Your task to perform on an android device: turn off notifications in google photos Image 0: 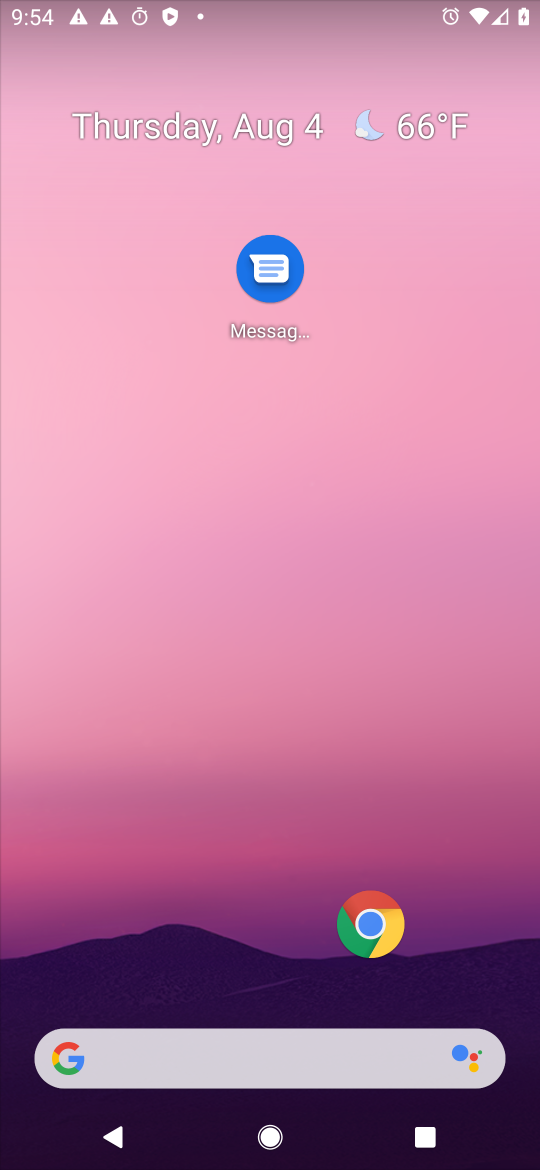
Step 0: drag from (294, 682) to (296, 107)
Your task to perform on an android device: turn off notifications in google photos Image 1: 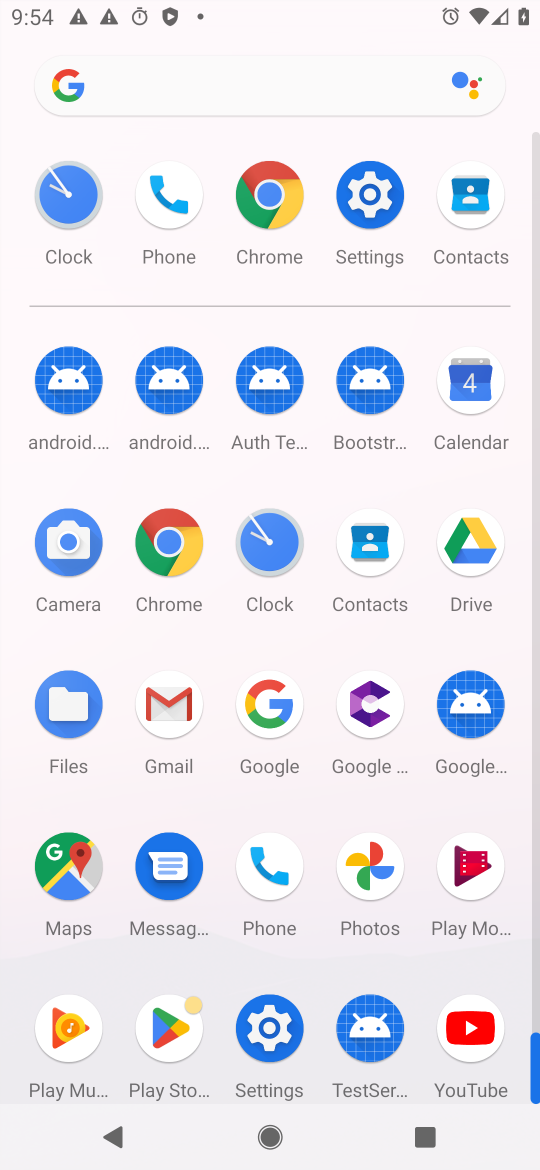
Step 1: click (353, 874)
Your task to perform on an android device: turn off notifications in google photos Image 2: 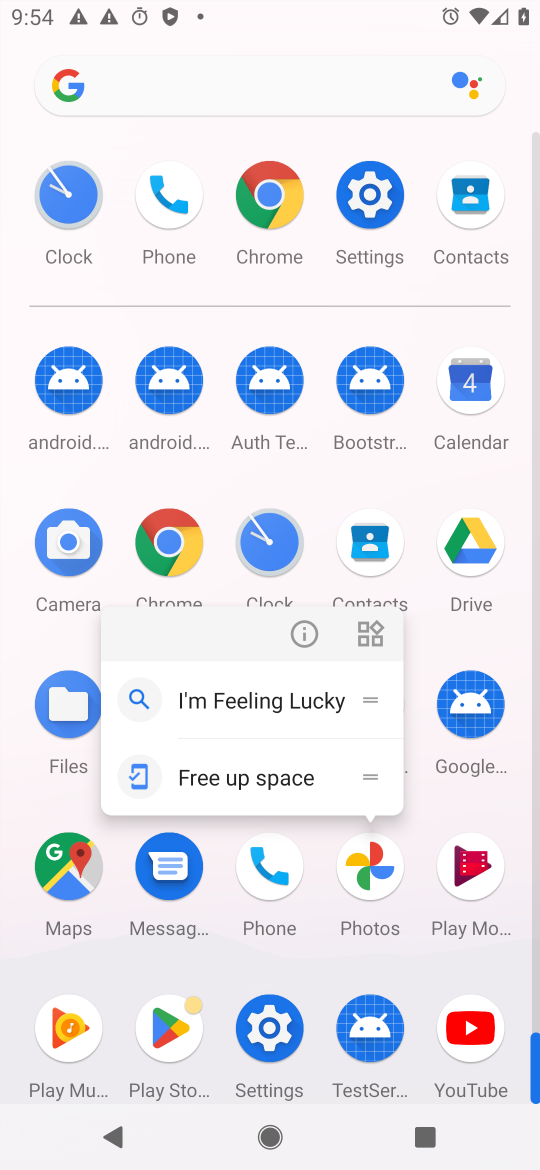
Step 2: click (300, 636)
Your task to perform on an android device: turn off notifications in google photos Image 3: 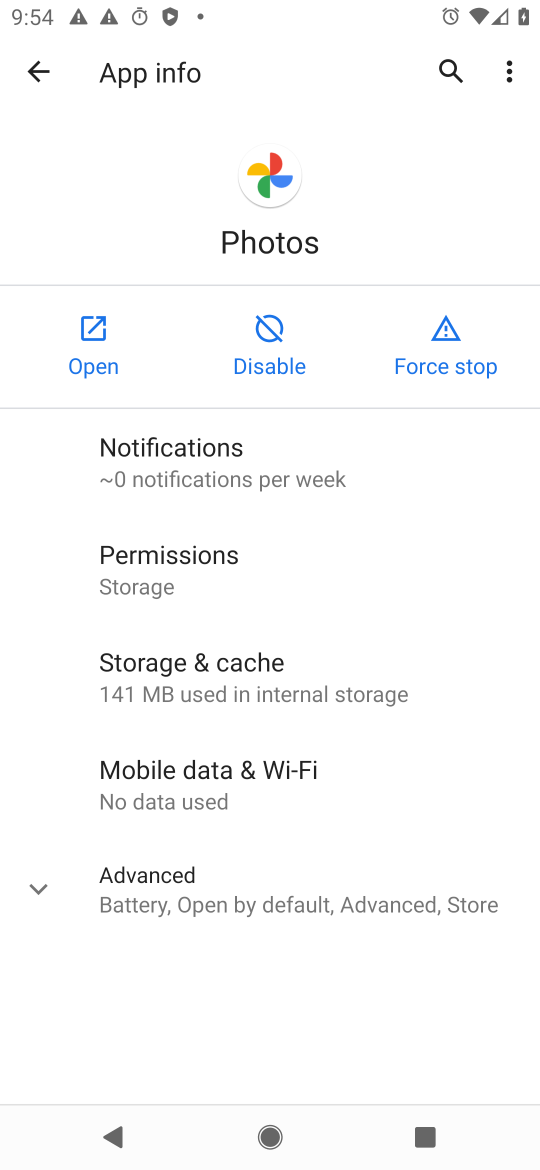
Step 3: click (98, 340)
Your task to perform on an android device: turn off notifications in google photos Image 4: 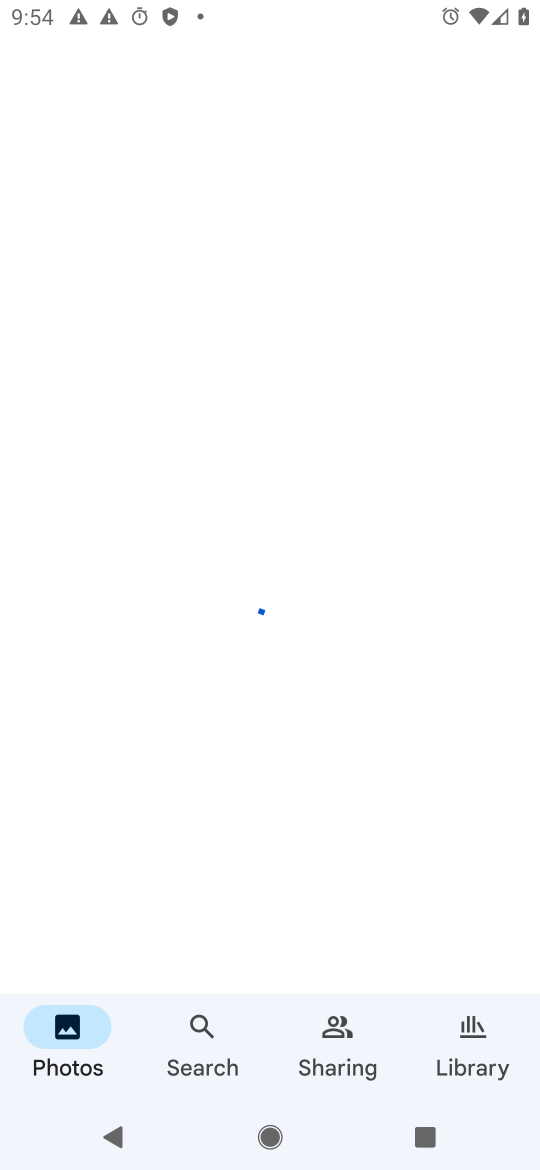
Step 4: drag from (241, 886) to (279, 589)
Your task to perform on an android device: turn off notifications in google photos Image 5: 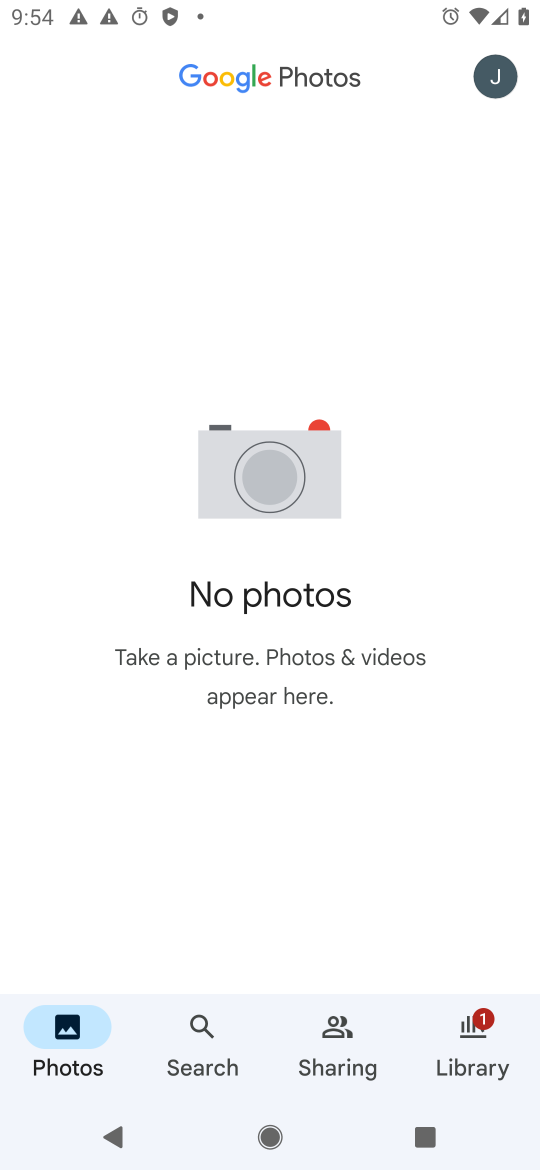
Step 5: drag from (225, 895) to (265, 421)
Your task to perform on an android device: turn off notifications in google photos Image 6: 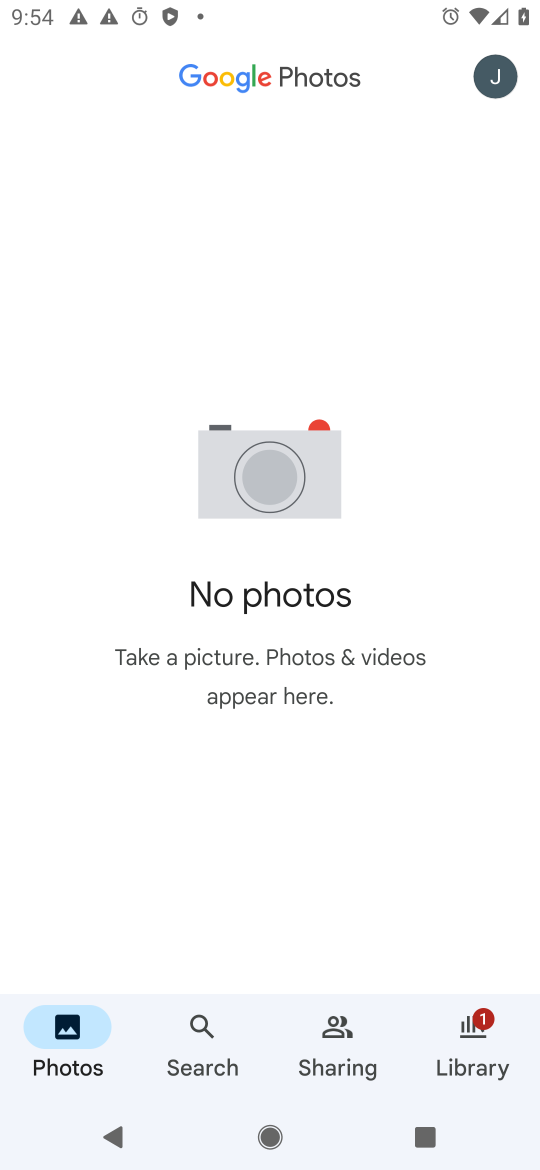
Step 6: drag from (293, 866) to (312, 507)
Your task to perform on an android device: turn off notifications in google photos Image 7: 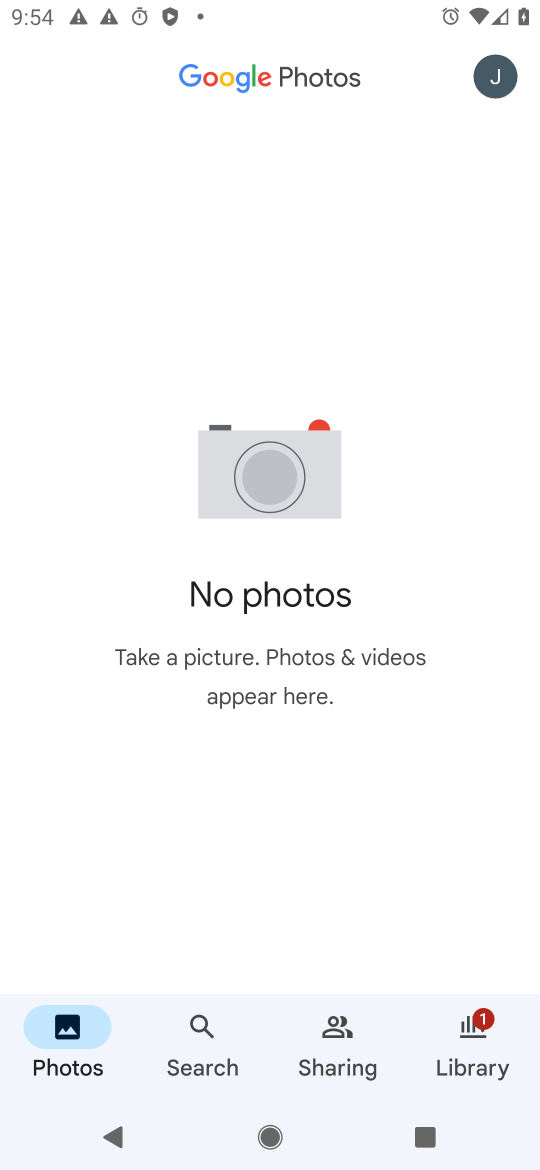
Step 7: click (499, 72)
Your task to perform on an android device: turn off notifications in google photos Image 8: 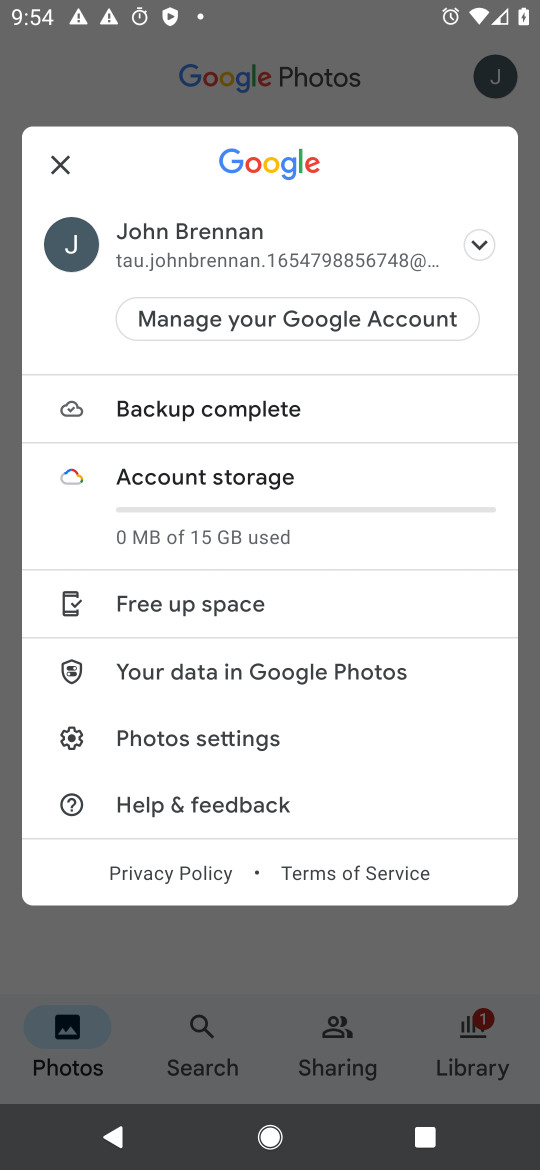
Step 8: click (173, 730)
Your task to perform on an android device: turn off notifications in google photos Image 9: 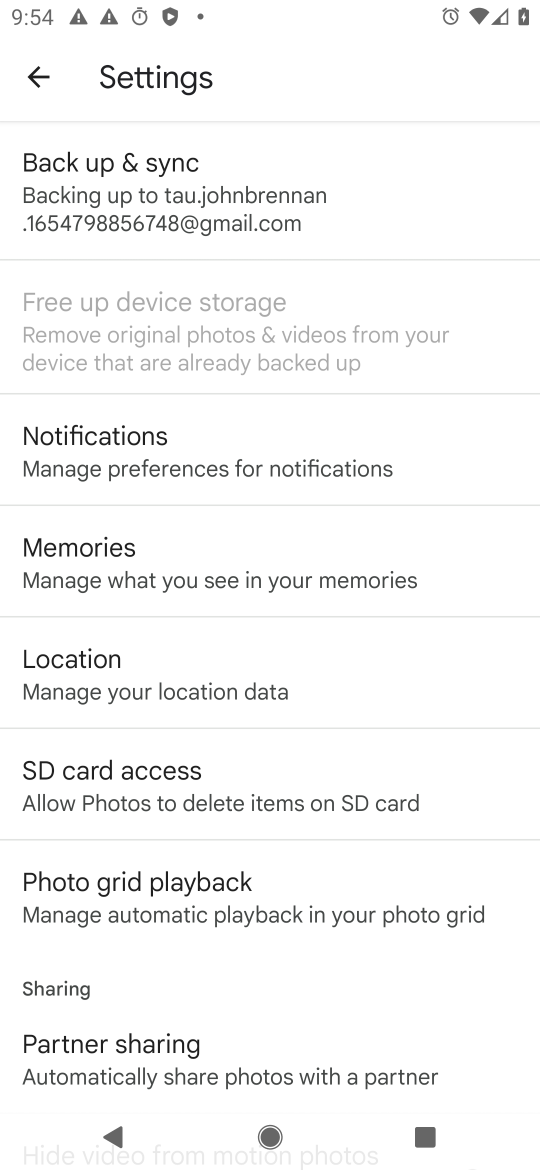
Step 9: click (169, 444)
Your task to perform on an android device: turn off notifications in google photos Image 10: 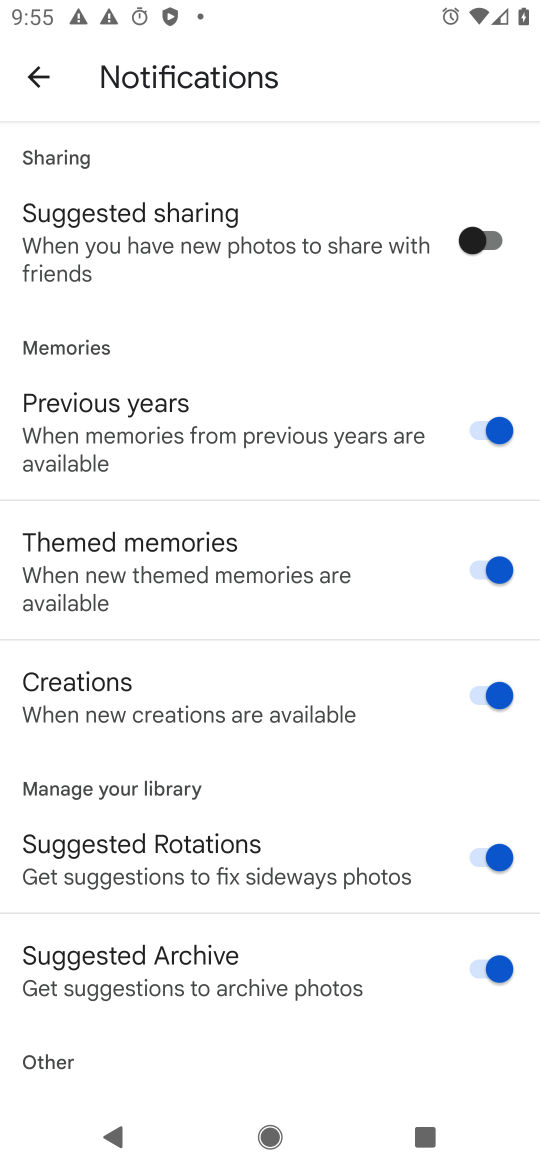
Step 10: drag from (248, 1003) to (316, 440)
Your task to perform on an android device: turn off notifications in google photos Image 11: 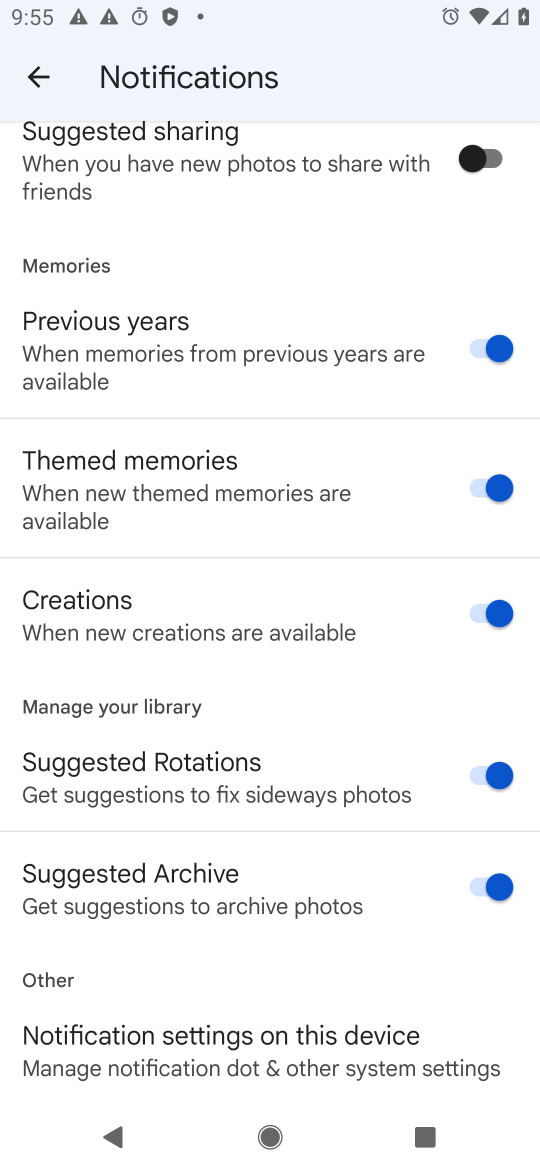
Step 11: click (155, 1029)
Your task to perform on an android device: turn off notifications in google photos Image 12: 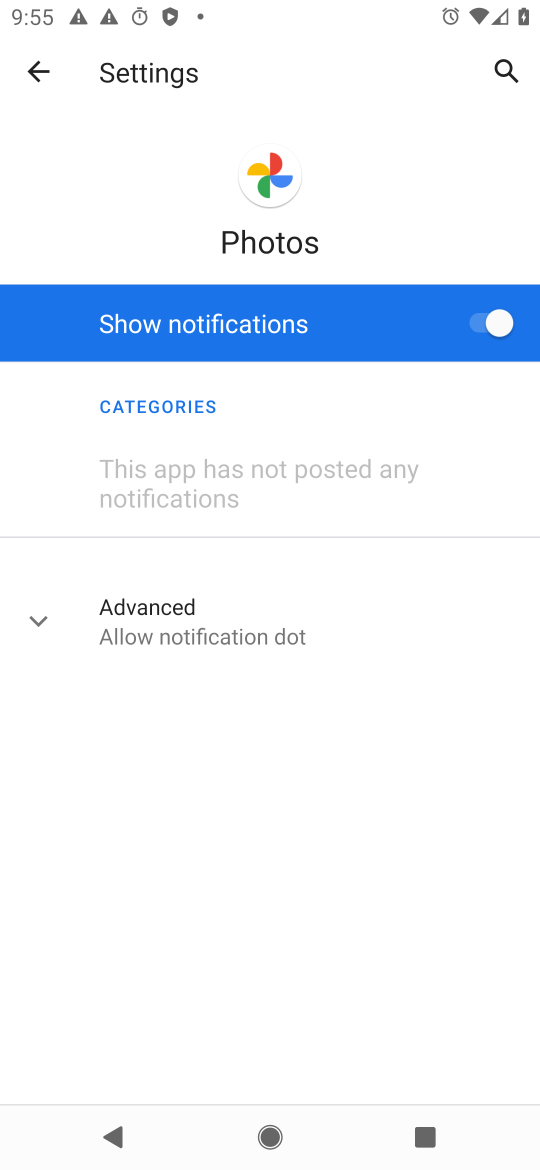
Step 12: click (503, 321)
Your task to perform on an android device: turn off notifications in google photos Image 13: 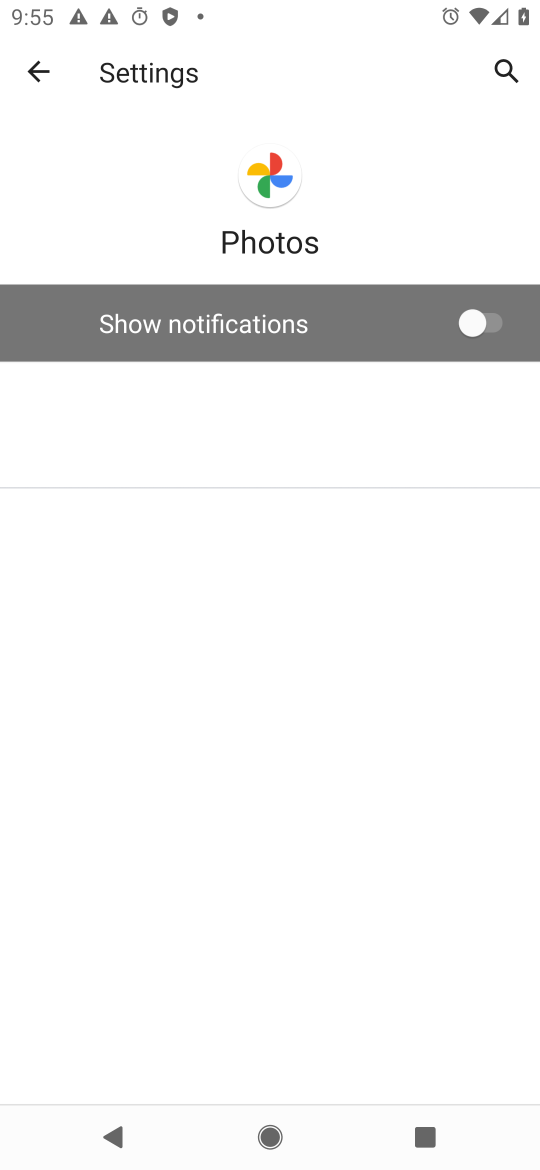
Step 13: task complete